Your task to perform on an android device: When is my next meeting? Image 0: 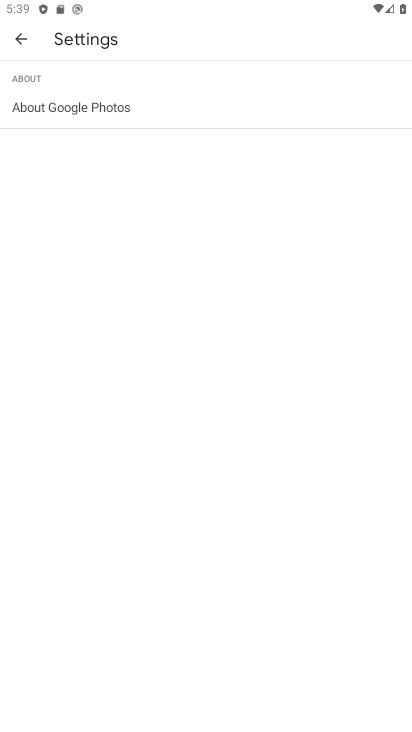
Step 0: press home button
Your task to perform on an android device: When is my next meeting? Image 1: 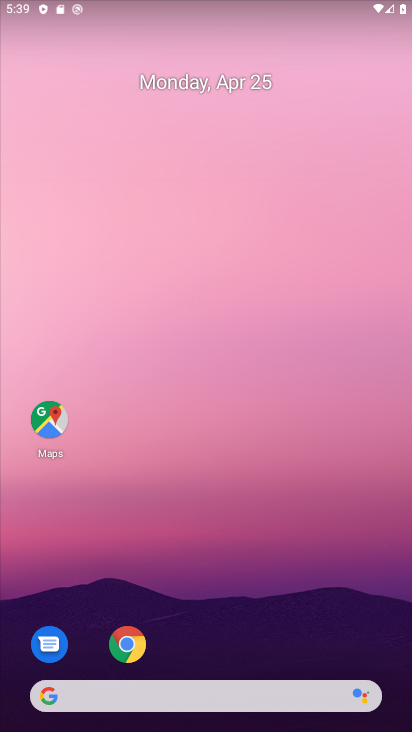
Step 1: drag from (232, 581) to (238, 6)
Your task to perform on an android device: When is my next meeting? Image 2: 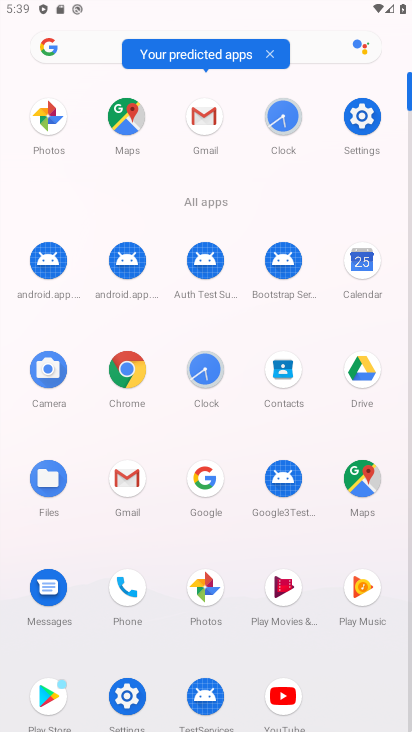
Step 2: click (367, 260)
Your task to perform on an android device: When is my next meeting? Image 3: 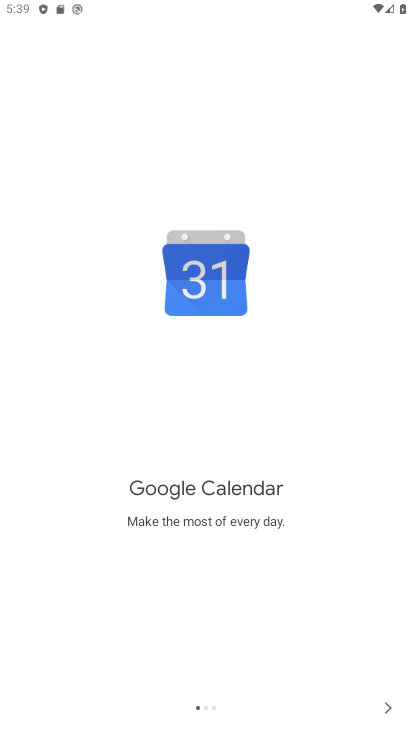
Step 3: click (385, 710)
Your task to perform on an android device: When is my next meeting? Image 4: 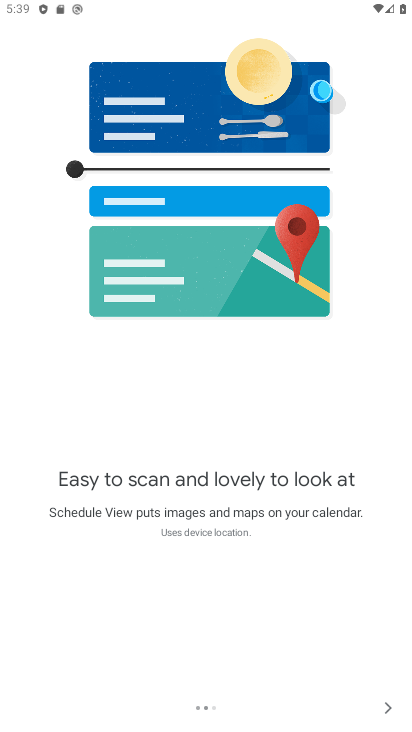
Step 4: click (389, 709)
Your task to perform on an android device: When is my next meeting? Image 5: 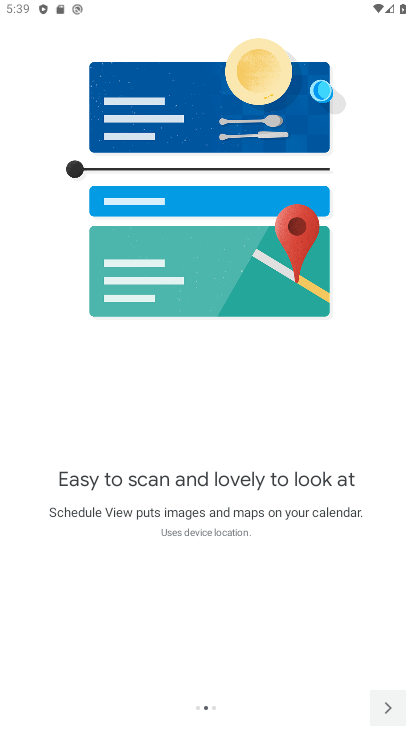
Step 5: click (389, 709)
Your task to perform on an android device: When is my next meeting? Image 6: 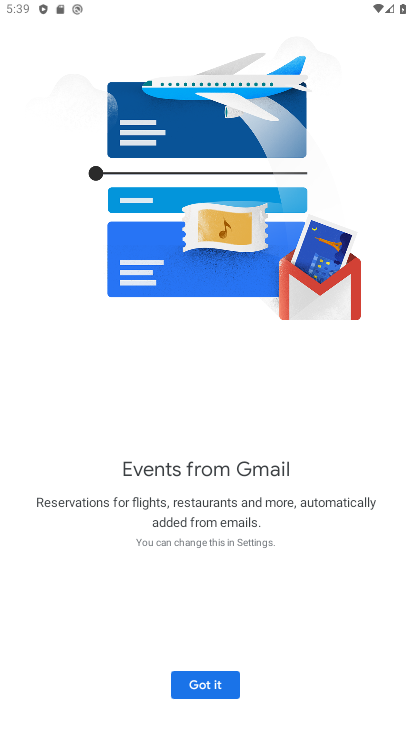
Step 6: click (196, 679)
Your task to perform on an android device: When is my next meeting? Image 7: 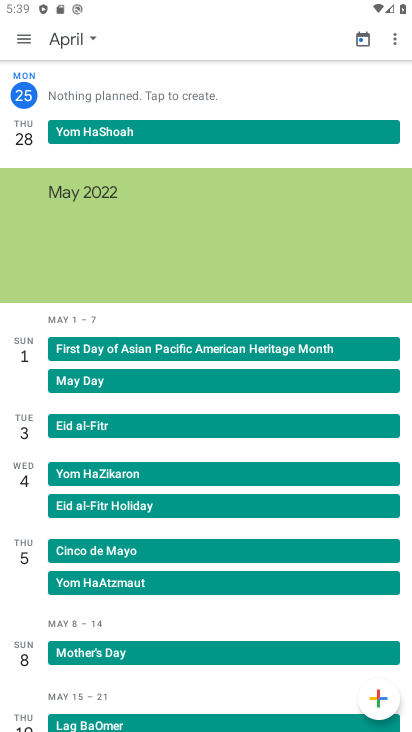
Step 7: click (20, 34)
Your task to perform on an android device: When is my next meeting? Image 8: 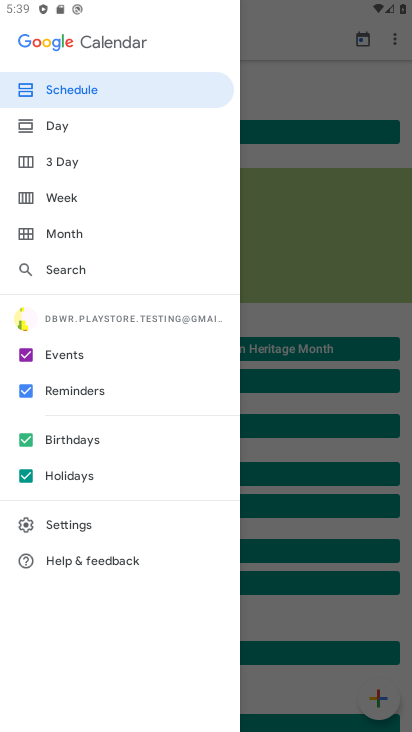
Step 8: click (23, 389)
Your task to perform on an android device: When is my next meeting? Image 9: 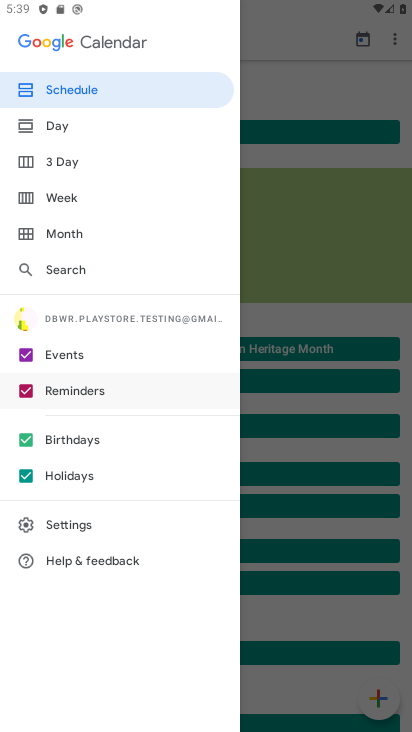
Step 9: click (21, 438)
Your task to perform on an android device: When is my next meeting? Image 10: 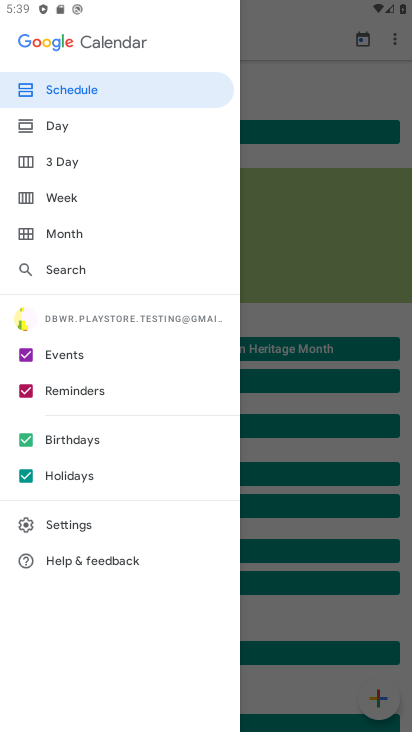
Step 10: click (32, 477)
Your task to perform on an android device: When is my next meeting? Image 11: 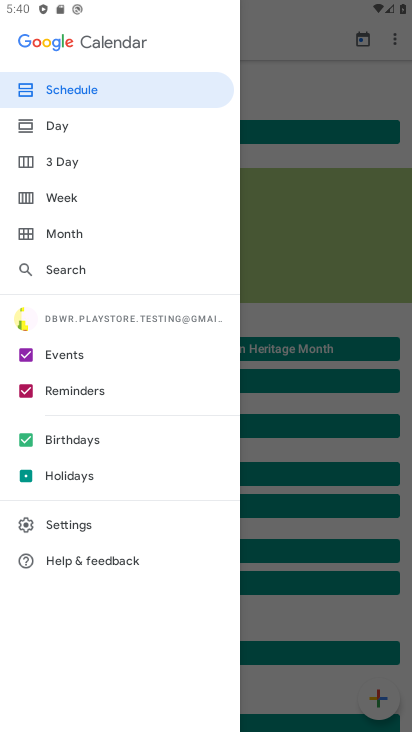
Step 11: click (26, 437)
Your task to perform on an android device: When is my next meeting? Image 12: 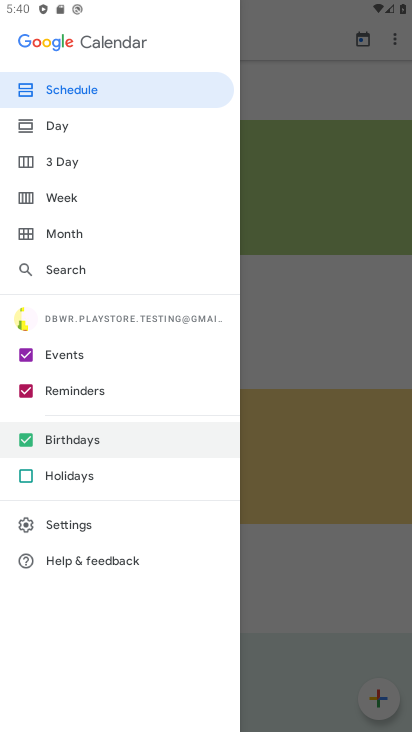
Step 12: click (26, 385)
Your task to perform on an android device: When is my next meeting? Image 13: 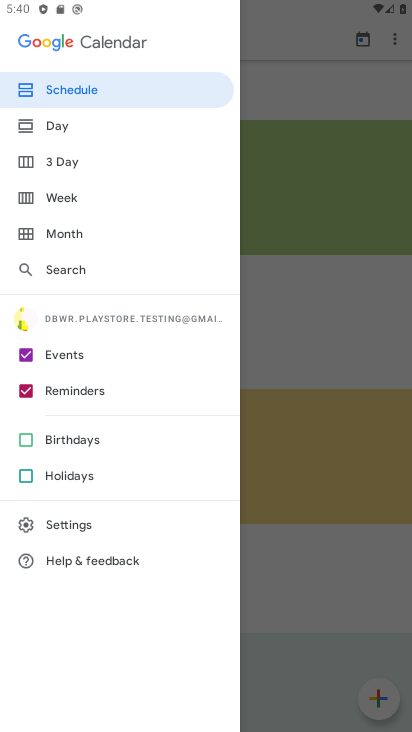
Step 13: click (23, 395)
Your task to perform on an android device: When is my next meeting? Image 14: 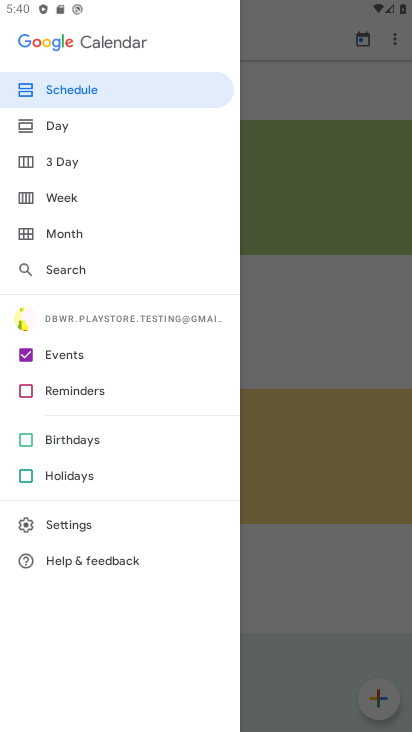
Step 14: click (26, 389)
Your task to perform on an android device: When is my next meeting? Image 15: 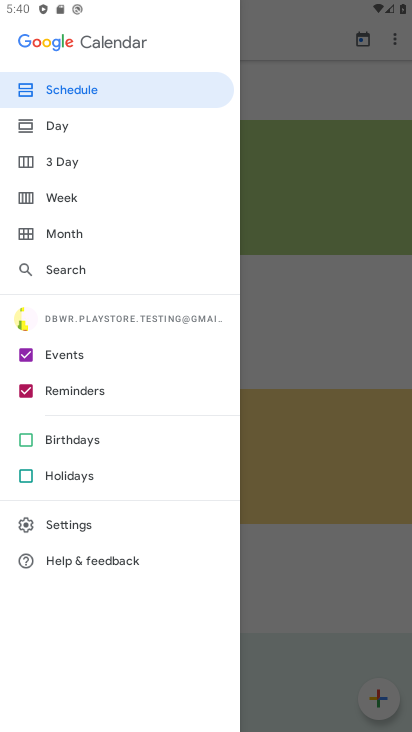
Step 15: click (26, 389)
Your task to perform on an android device: When is my next meeting? Image 16: 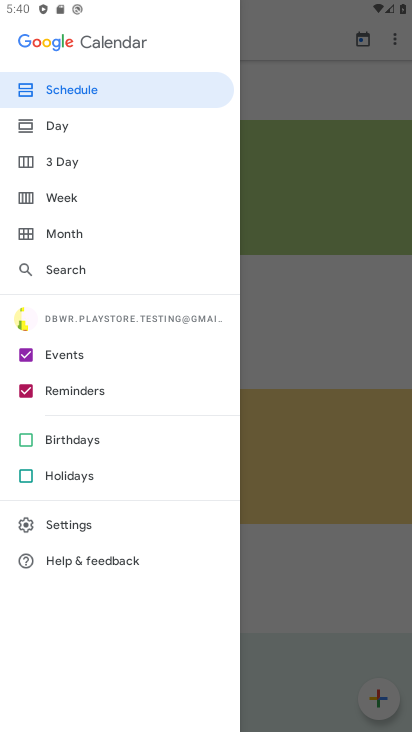
Step 16: click (26, 389)
Your task to perform on an android device: When is my next meeting? Image 17: 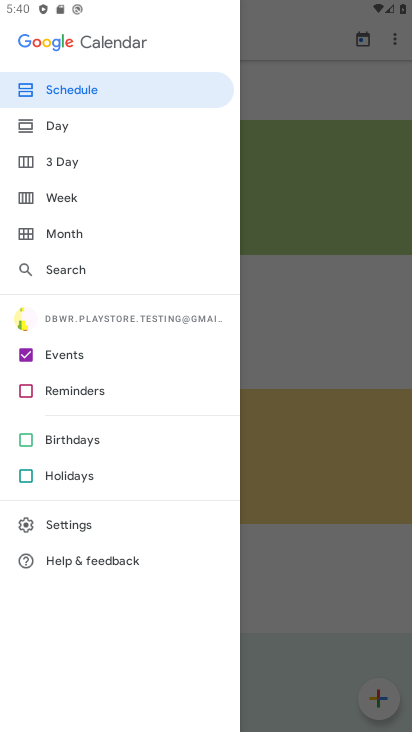
Step 17: click (300, 292)
Your task to perform on an android device: When is my next meeting? Image 18: 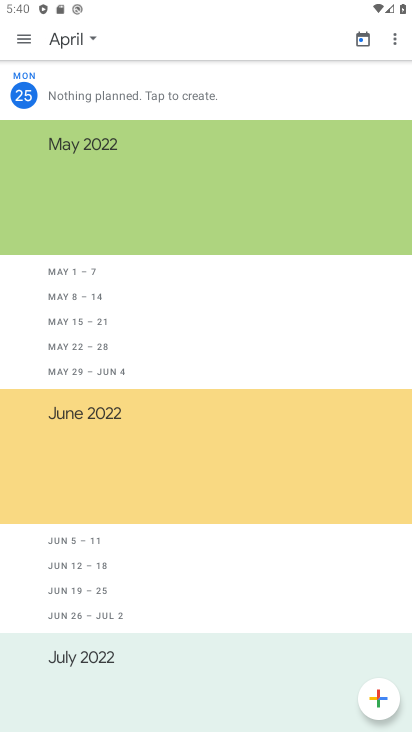
Step 18: click (78, 37)
Your task to perform on an android device: When is my next meeting? Image 19: 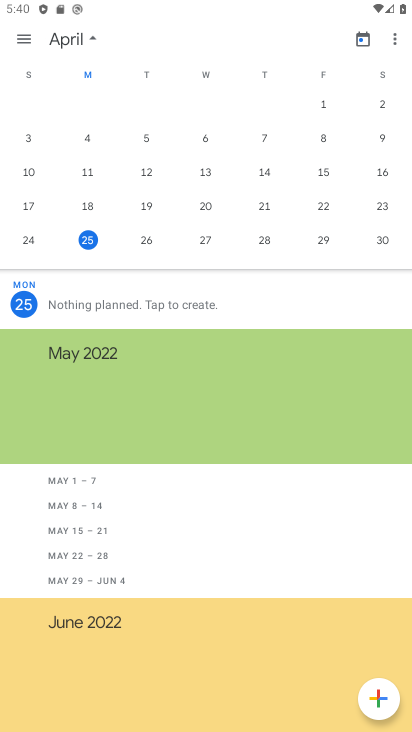
Step 19: click (78, 37)
Your task to perform on an android device: When is my next meeting? Image 20: 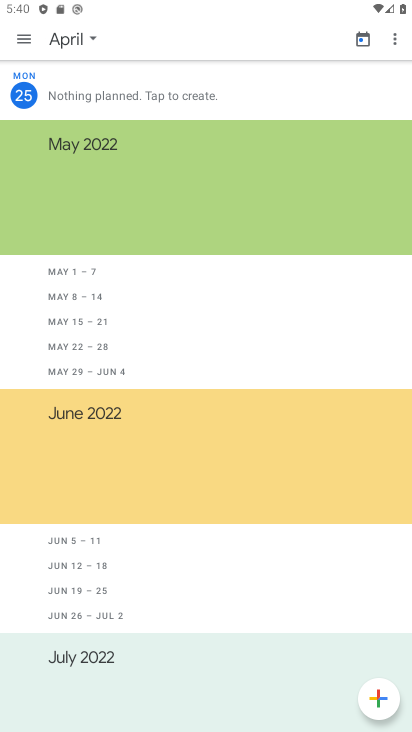
Step 20: task complete